Your task to perform on an android device: Check the news Image 0: 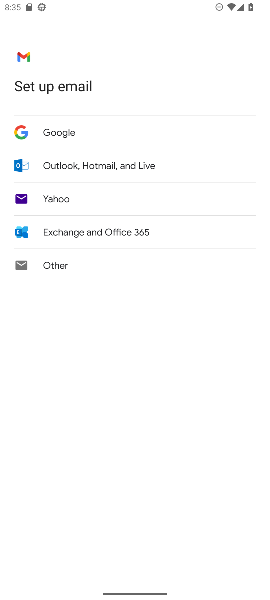
Step 0: press home button
Your task to perform on an android device: Check the news Image 1: 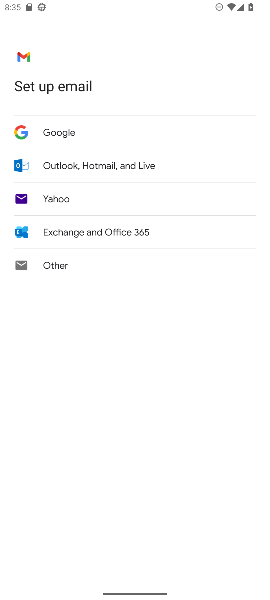
Step 1: press home button
Your task to perform on an android device: Check the news Image 2: 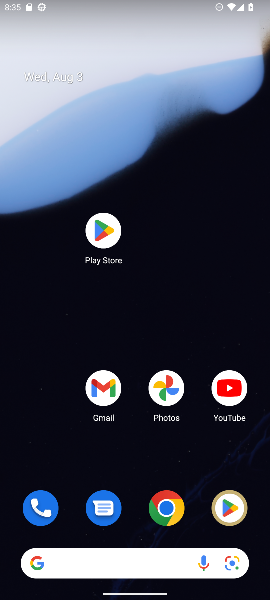
Step 2: click (105, 555)
Your task to perform on an android device: Check the news Image 3: 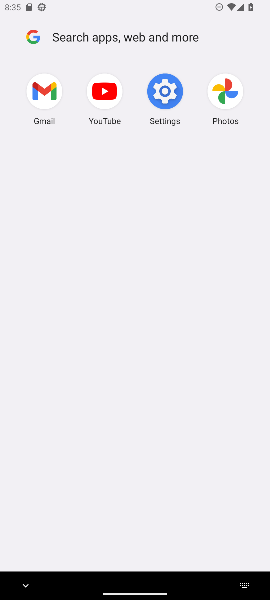
Step 3: click (115, 37)
Your task to perform on an android device: Check the news Image 4: 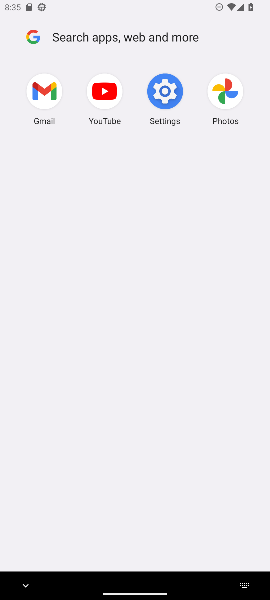
Step 4: type ""
Your task to perform on an android device: Check the news Image 5: 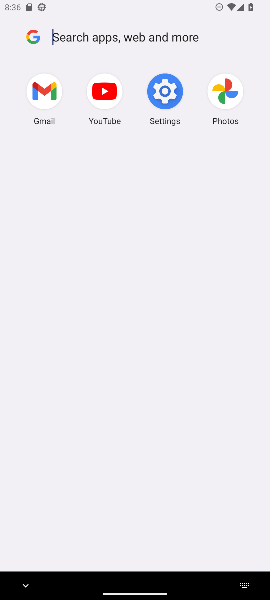
Step 5: type " news"
Your task to perform on an android device: Check the news Image 6: 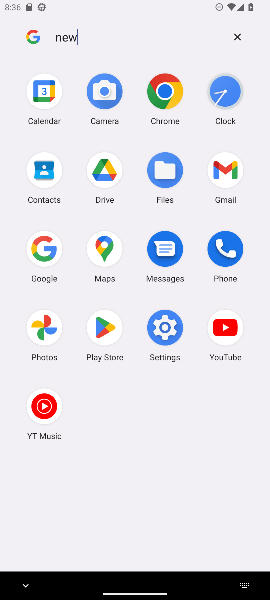
Step 6: type ""
Your task to perform on an android device: Check the news Image 7: 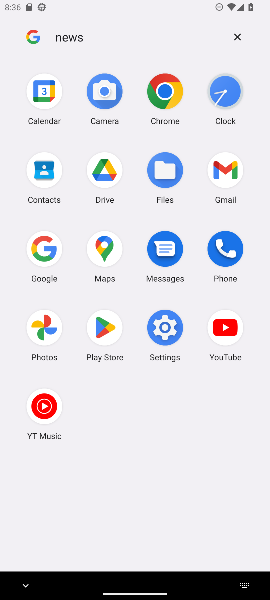
Step 7: click (53, 253)
Your task to perform on an android device: Check the news Image 8: 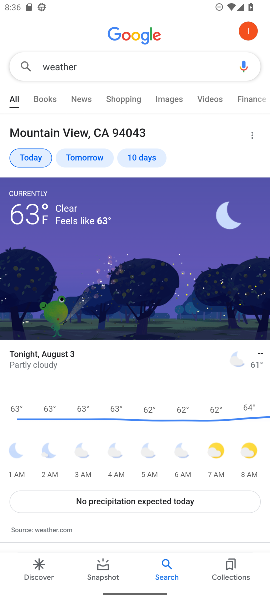
Step 8: click (77, 66)
Your task to perform on an android device: Check the news Image 9: 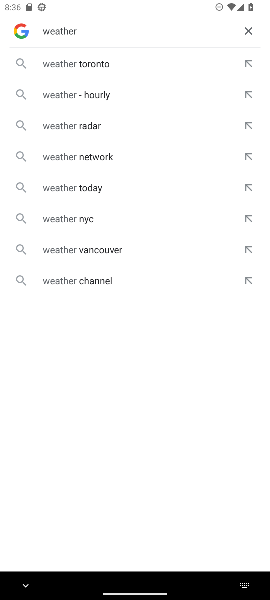
Step 9: click (246, 25)
Your task to perform on an android device: Check the news Image 10: 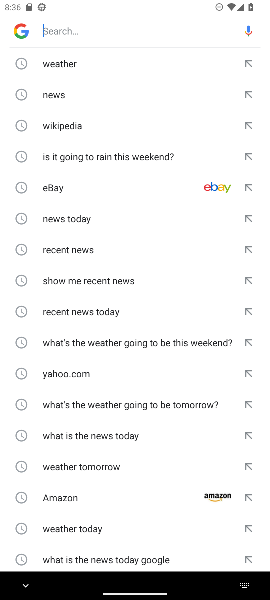
Step 10: type "news"
Your task to perform on an android device: Check the news Image 11: 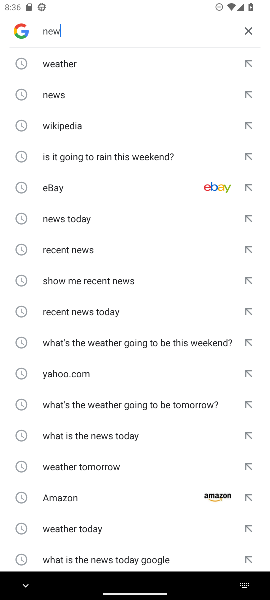
Step 11: type ""
Your task to perform on an android device: Check the news Image 12: 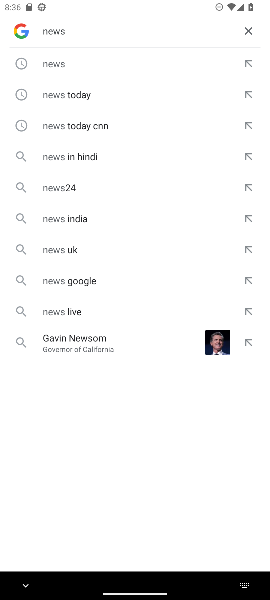
Step 12: click (71, 73)
Your task to perform on an android device: Check the news Image 13: 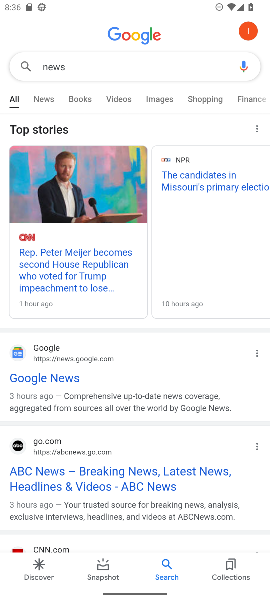
Step 13: click (41, 98)
Your task to perform on an android device: Check the news Image 14: 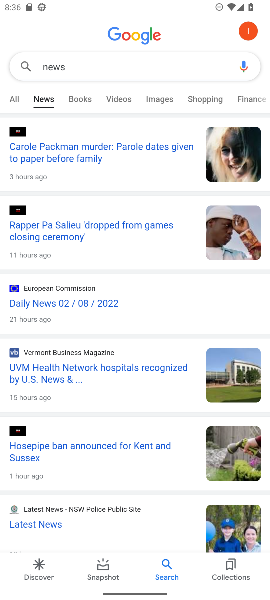
Step 14: task complete